Your task to perform on an android device: turn off picture-in-picture Image 0: 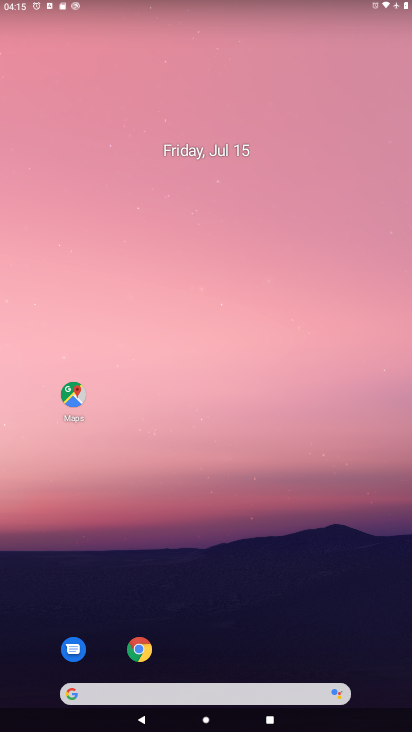
Step 0: drag from (388, 662) to (319, 38)
Your task to perform on an android device: turn off picture-in-picture Image 1: 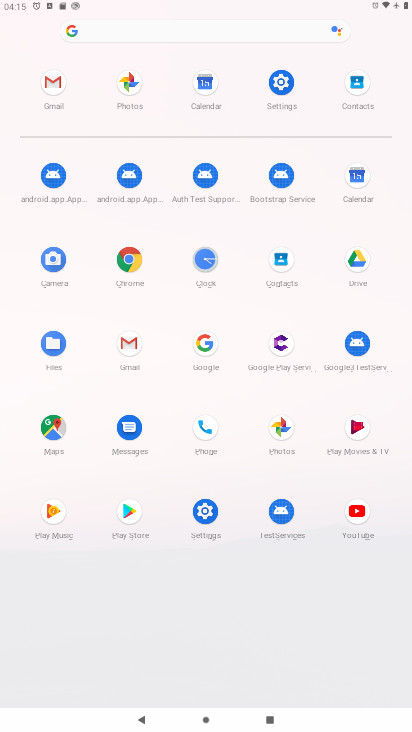
Step 1: click (205, 512)
Your task to perform on an android device: turn off picture-in-picture Image 2: 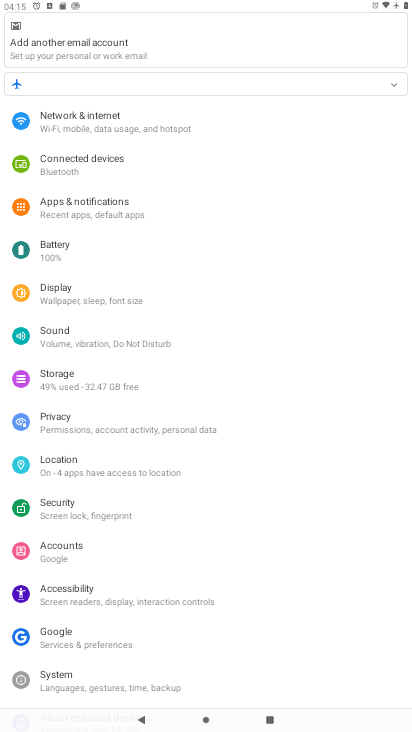
Step 2: click (72, 204)
Your task to perform on an android device: turn off picture-in-picture Image 3: 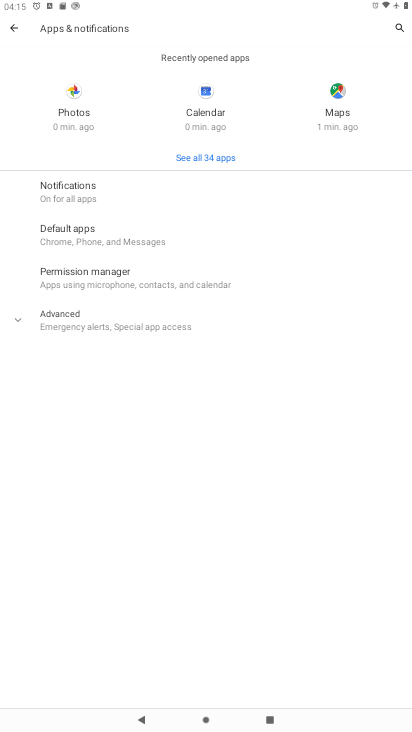
Step 3: click (16, 317)
Your task to perform on an android device: turn off picture-in-picture Image 4: 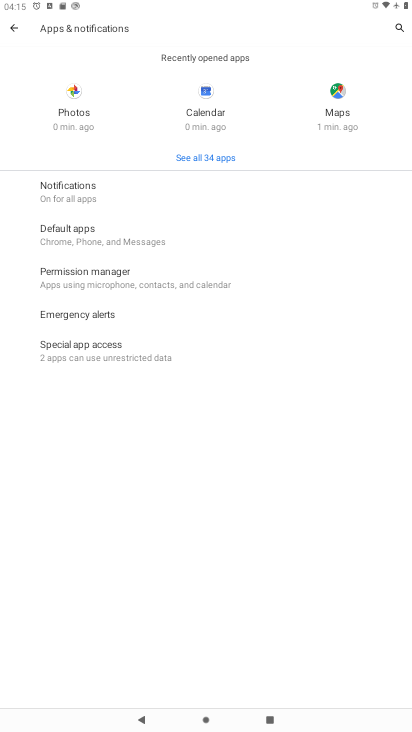
Step 4: click (83, 350)
Your task to perform on an android device: turn off picture-in-picture Image 5: 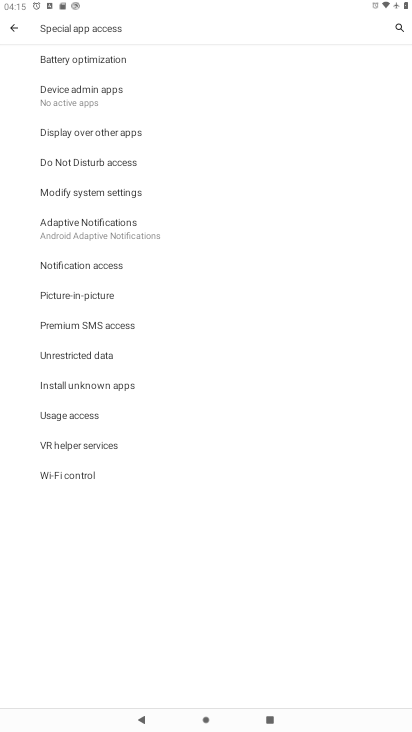
Step 5: click (66, 293)
Your task to perform on an android device: turn off picture-in-picture Image 6: 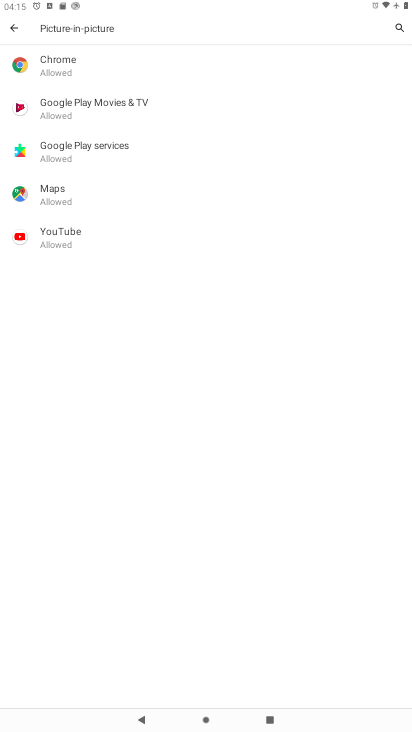
Step 6: click (54, 231)
Your task to perform on an android device: turn off picture-in-picture Image 7: 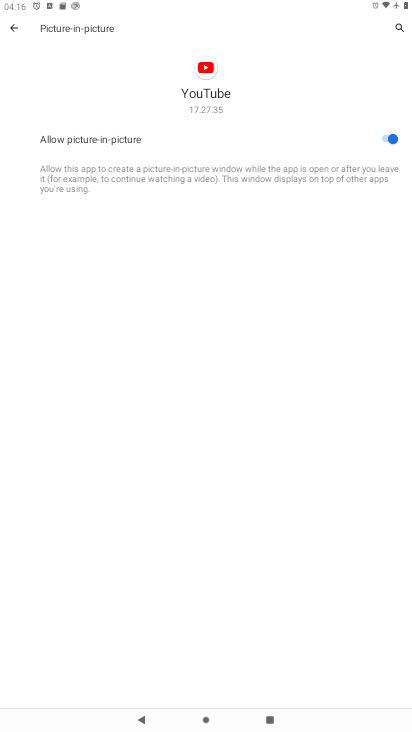
Step 7: click (383, 139)
Your task to perform on an android device: turn off picture-in-picture Image 8: 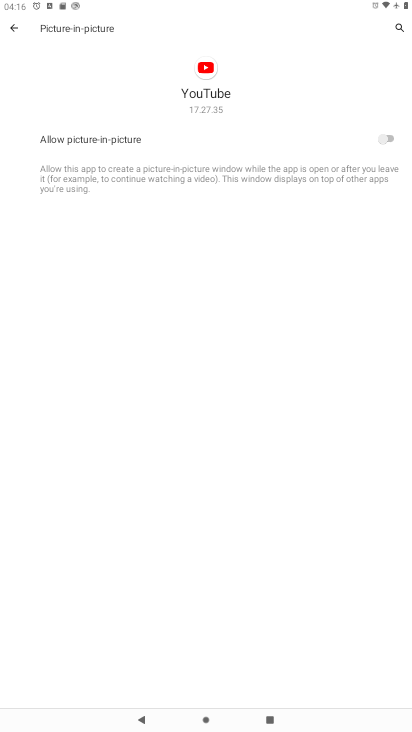
Step 8: task complete